Your task to perform on an android device: What's on my calendar today? Image 0: 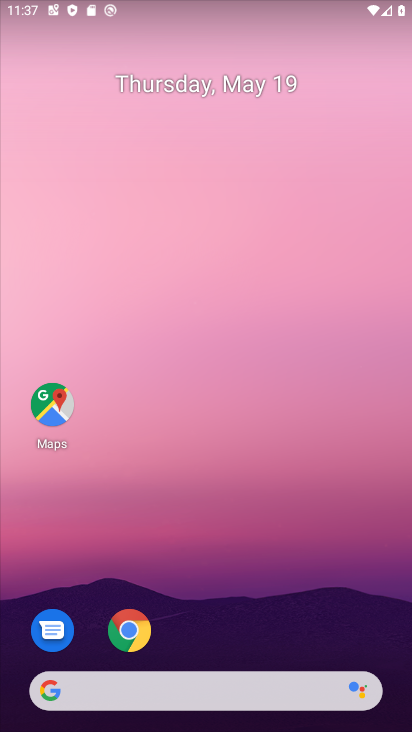
Step 0: drag from (245, 415) to (234, 110)
Your task to perform on an android device: What's on my calendar today? Image 1: 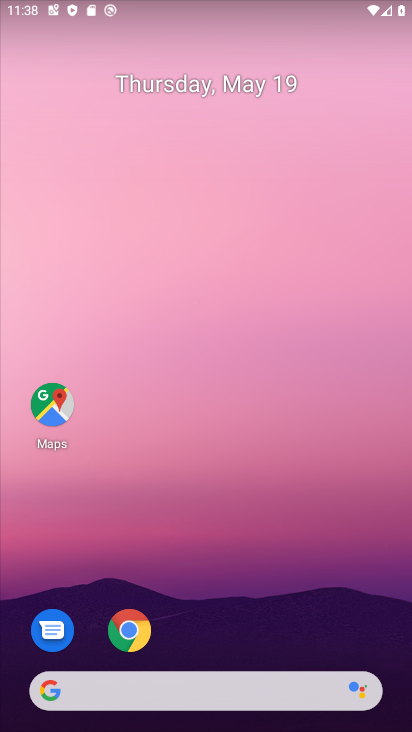
Step 1: drag from (228, 510) to (183, 0)
Your task to perform on an android device: What's on my calendar today? Image 2: 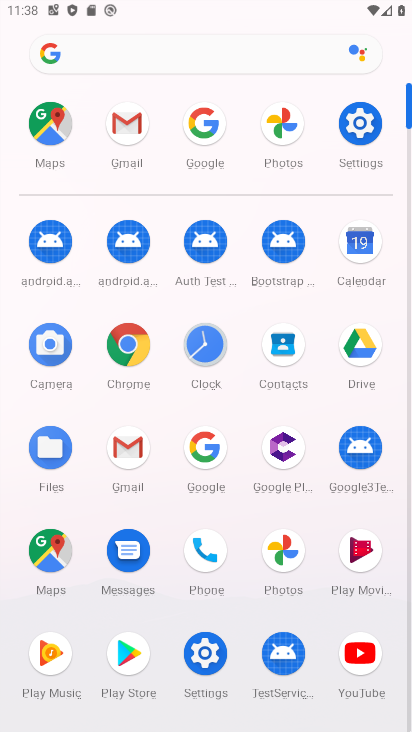
Step 2: click (360, 245)
Your task to perform on an android device: What's on my calendar today? Image 3: 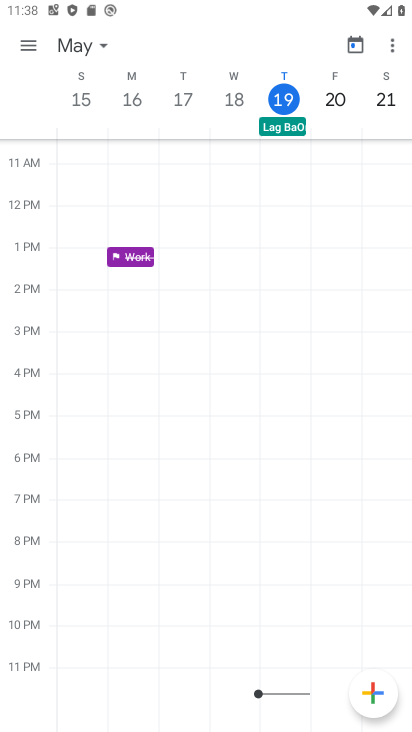
Step 3: click (30, 46)
Your task to perform on an android device: What's on my calendar today? Image 4: 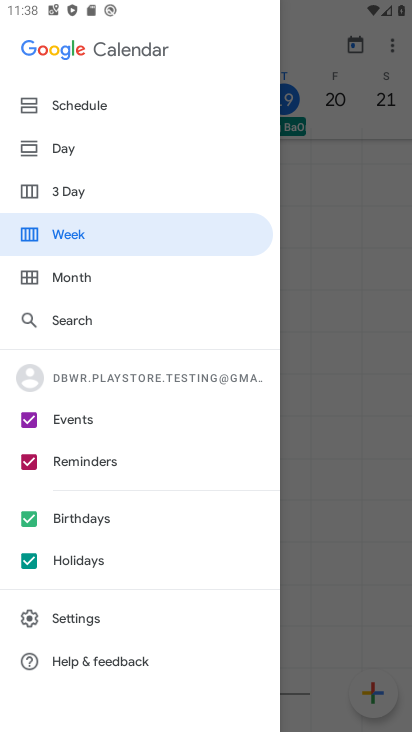
Step 4: click (90, 95)
Your task to perform on an android device: What's on my calendar today? Image 5: 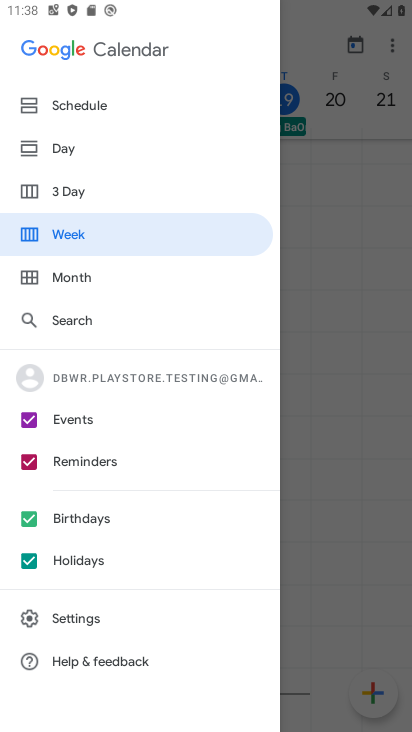
Step 5: click (84, 107)
Your task to perform on an android device: What's on my calendar today? Image 6: 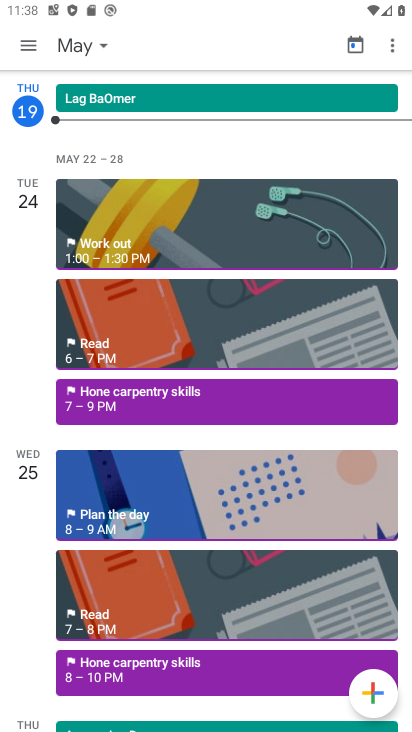
Step 6: click (84, 107)
Your task to perform on an android device: What's on my calendar today? Image 7: 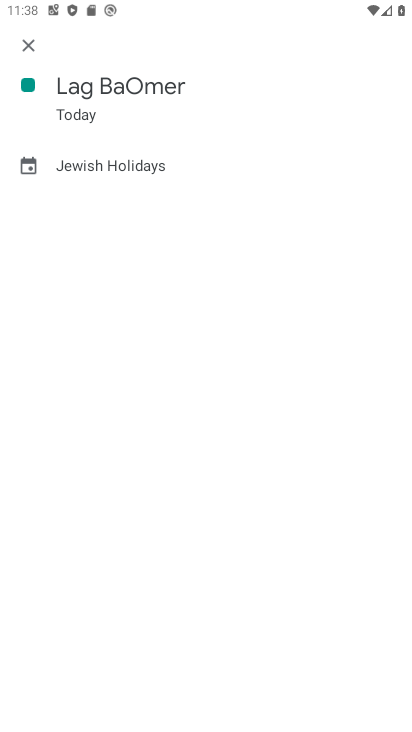
Step 7: task complete